Your task to perform on an android device: toggle notifications settings in the gmail app Image 0: 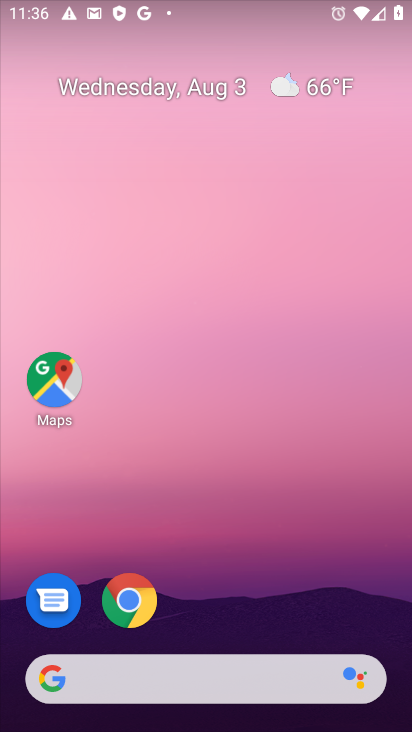
Step 0: drag from (190, 636) to (176, 62)
Your task to perform on an android device: toggle notifications settings in the gmail app Image 1: 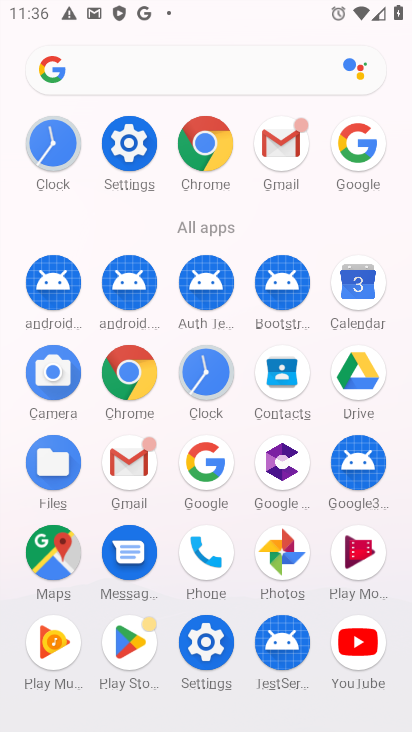
Step 1: click (136, 484)
Your task to perform on an android device: toggle notifications settings in the gmail app Image 2: 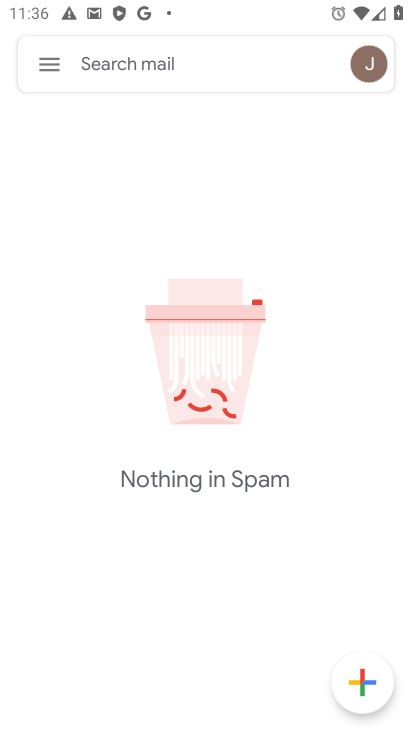
Step 2: click (107, 77)
Your task to perform on an android device: toggle notifications settings in the gmail app Image 3: 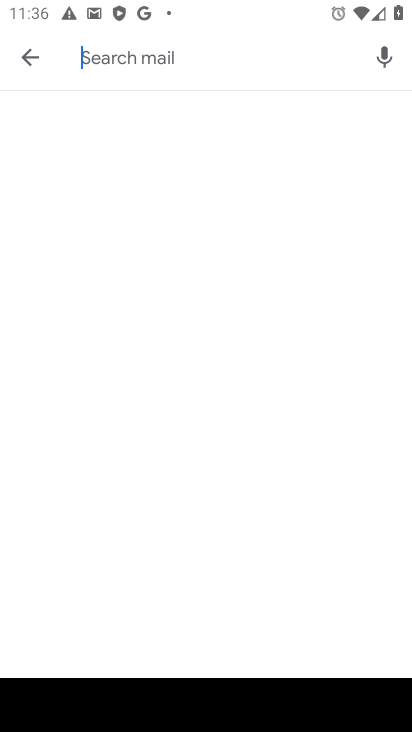
Step 3: click (33, 48)
Your task to perform on an android device: toggle notifications settings in the gmail app Image 4: 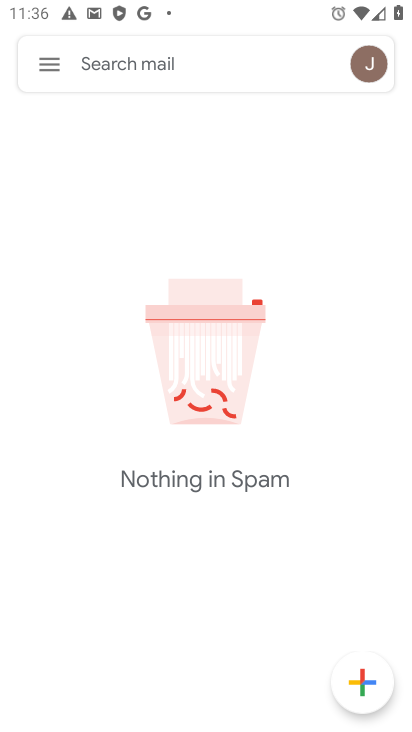
Step 4: click (53, 69)
Your task to perform on an android device: toggle notifications settings in the gmail app Image 5: 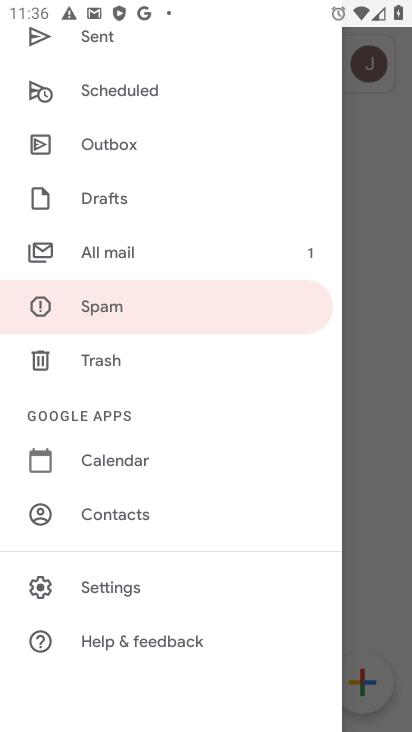
Step 5: click (97, 585)
Your task to perform on an android device: toggle notifications settings in the gmail app Image 6: 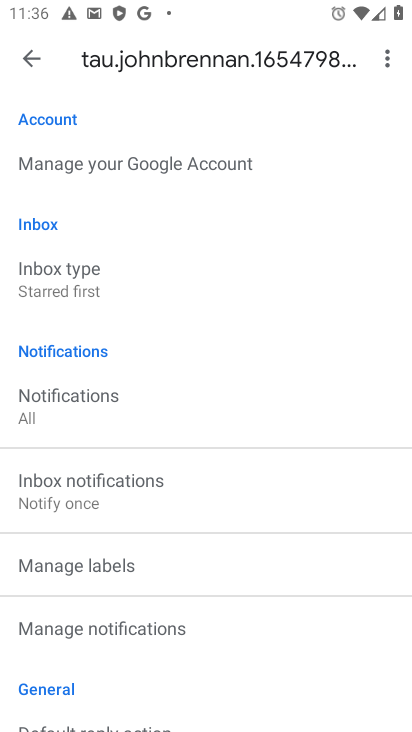
Step 6: click (25, 60)
Your task to perform on an android device: toggle notifications settings in the gmail app Image 7: 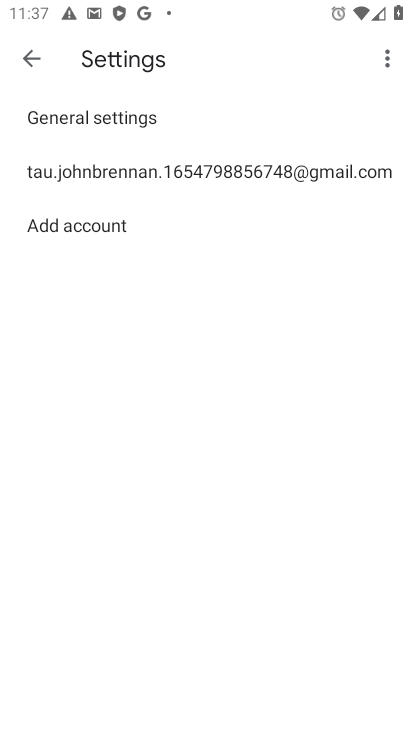
Step 7: click (64, 118)
Your task to perform on an android device: toggle notifications settings in the gmail app Image 8: 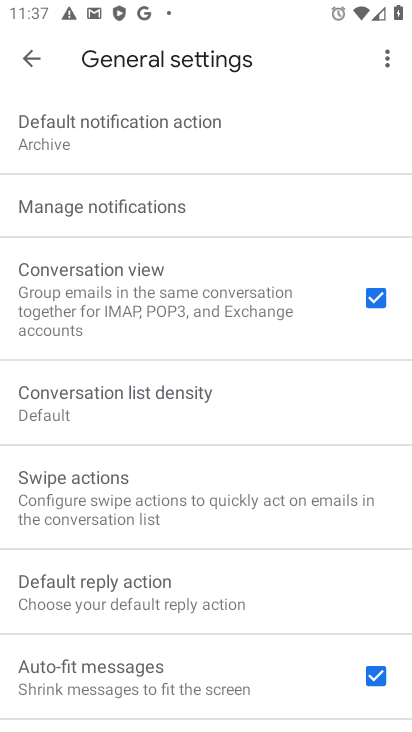
Step 8: click (65, 195)
Your task to perform on an android device: toggle notifications settings in the gmail app Image 9: 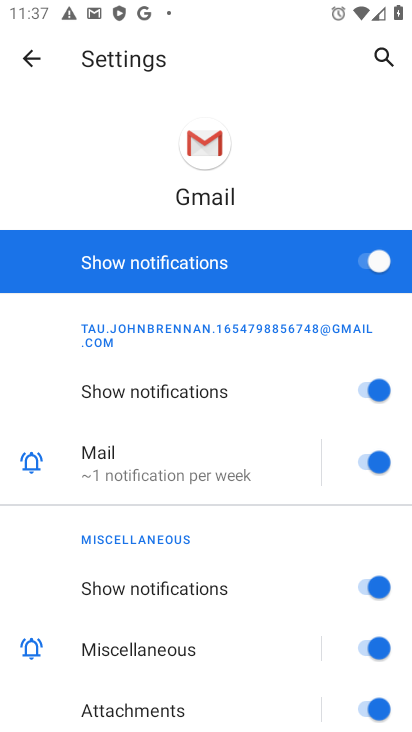
Step 9: click (365, 261)
Your task to perform on an android device: toggle notifications settings in the gmail app Image 10: 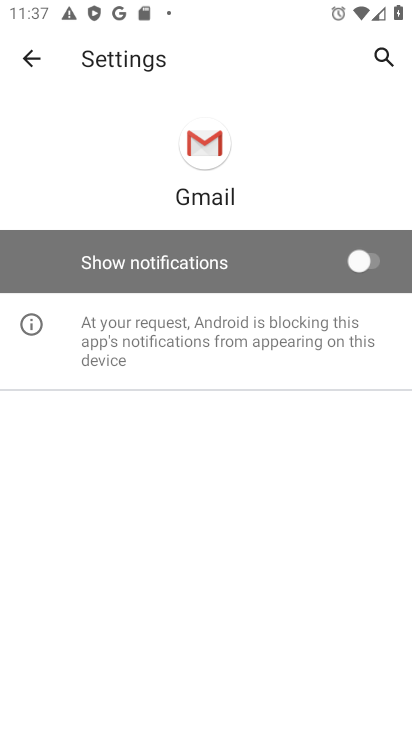
Step 10: task complete